Your task to perform on an android device: Open Chrome and go to settings Image 0: 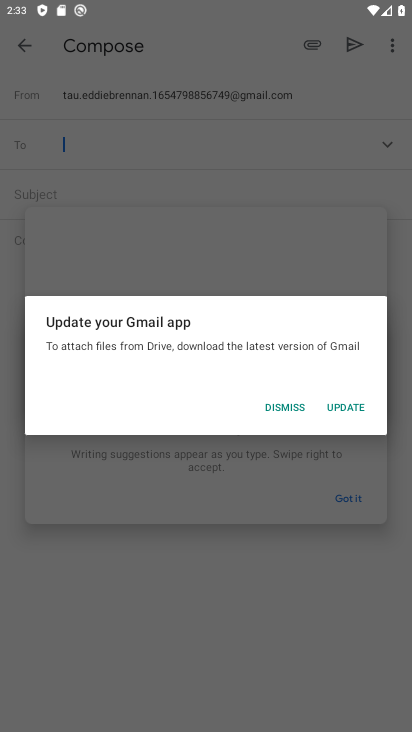
Step 0: press home button
Your task to perform on an android device: Open Chrome and go to settings Image 1: 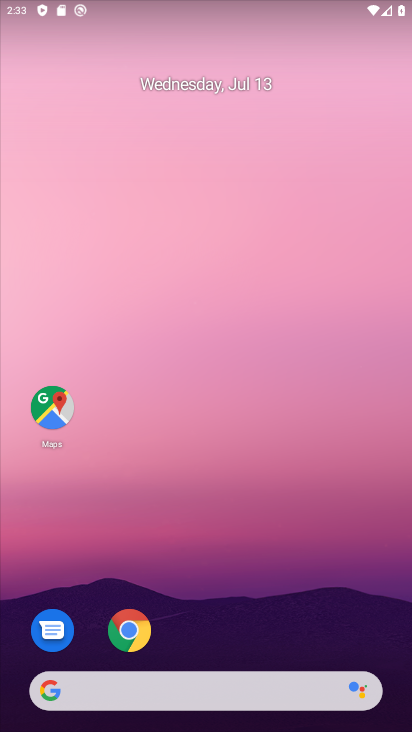
Step 1: drag from (358, 630) to (365, 235)
Your task to perform on an android device: Open Chrome and go to settings Image 2: 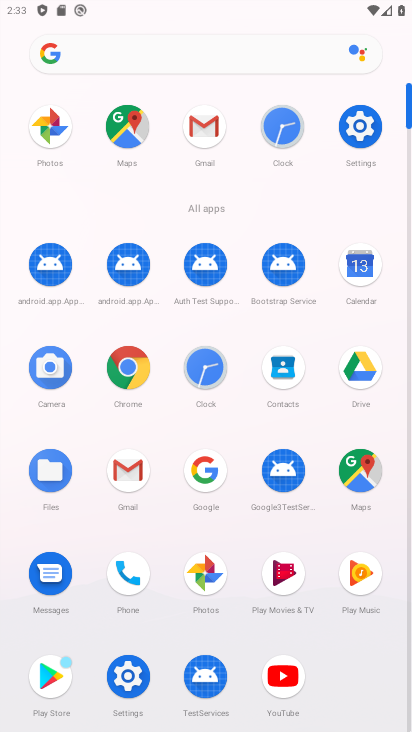
Step 2: click (141, 358)
Your task to perform on an android device: Open Chrome and go to settings Image 3: 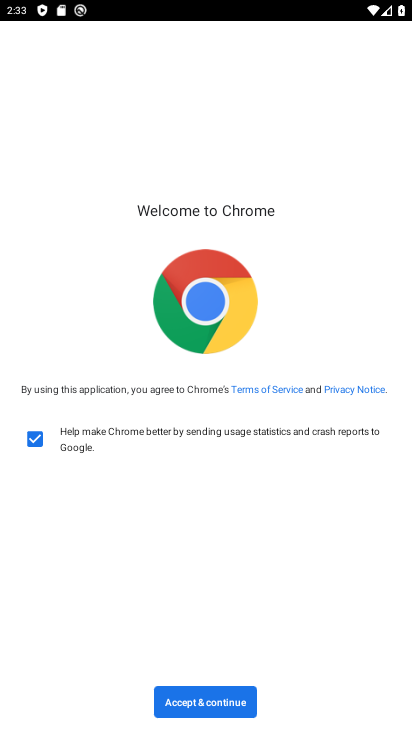
Step 3: click (233, 694)
Your task to perform on an android device: Open Chrome and go to settings Image 4: 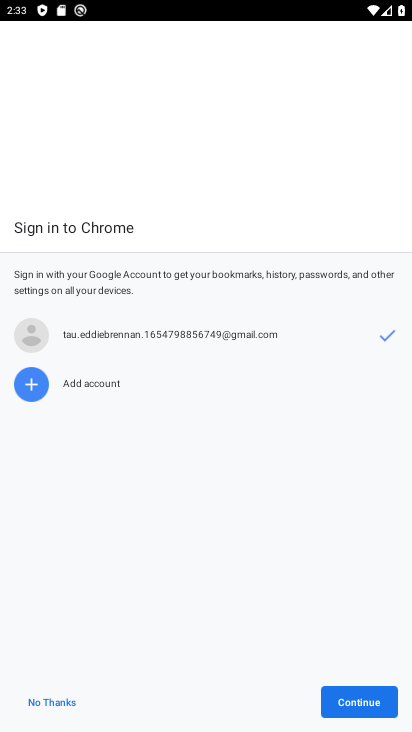
Step 4: click (363, 707)
Your task to perform on an android device: Open Chrome and go to settings Image 5: 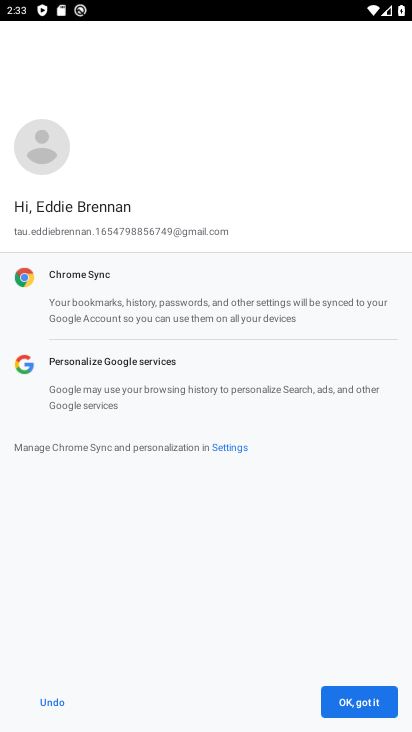
Step 5: click (354, 706)
Your task to perform on an android device: Open Chrome and go to settings Image 6: 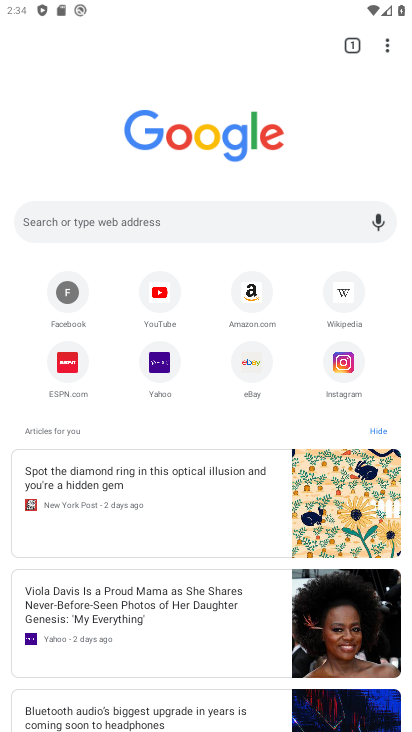
Step 6: click (389, 51)
Your task to perform on an android device: Open Chrome and go to settings Image 7: 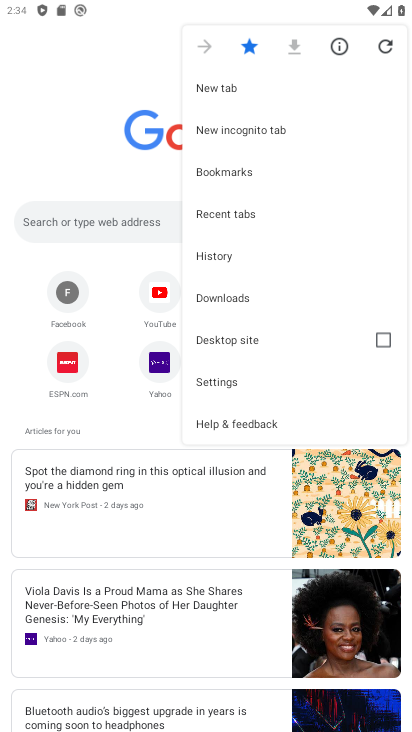
Step 7: click (313, 388)
Your task to perform on an android device: Open Chrome and go to settings Image 8: 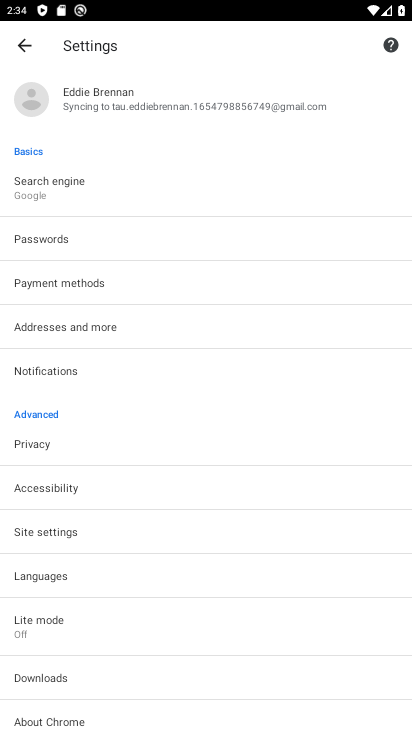
Step 8: task complete